Your task to perform on an android device: change the clock display to analog Image 0: 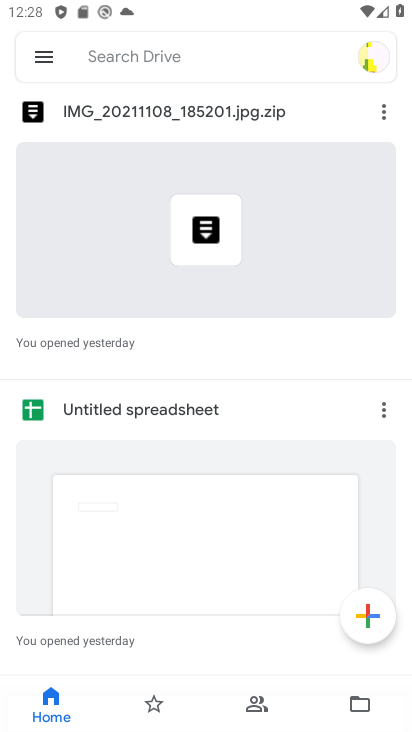
Step 0: press home button
Your task to perform on an android device: change the clock display to analog Image 1: 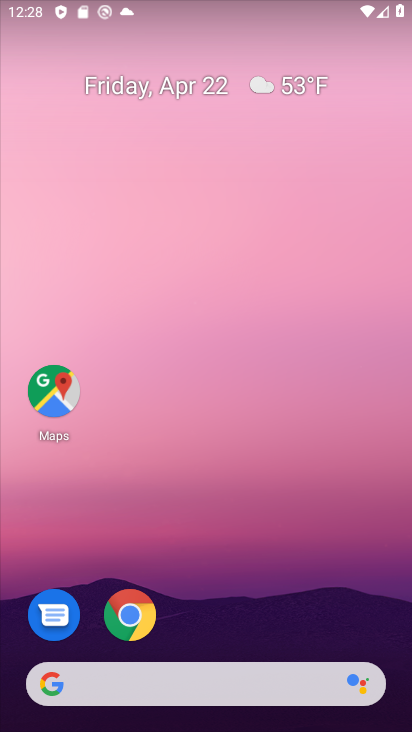
Step 1: drag from (363, 636) to (389, 14)
Your task to perform on an android device: change the clock display to analog Image 2: 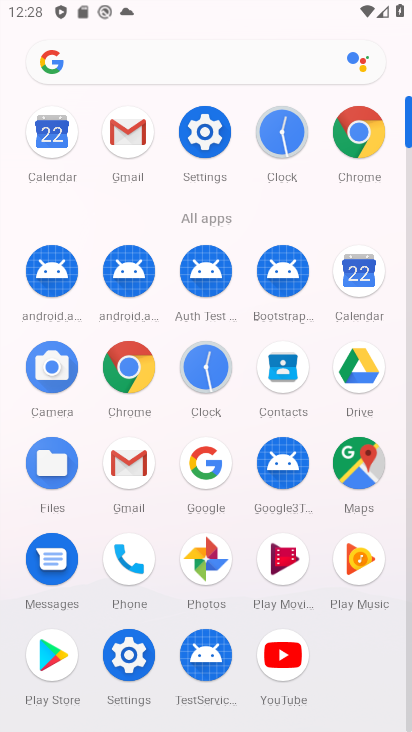
Step 2: click (283, 135)
Your task to perform on an android device: change the clock display to analog Image 3: 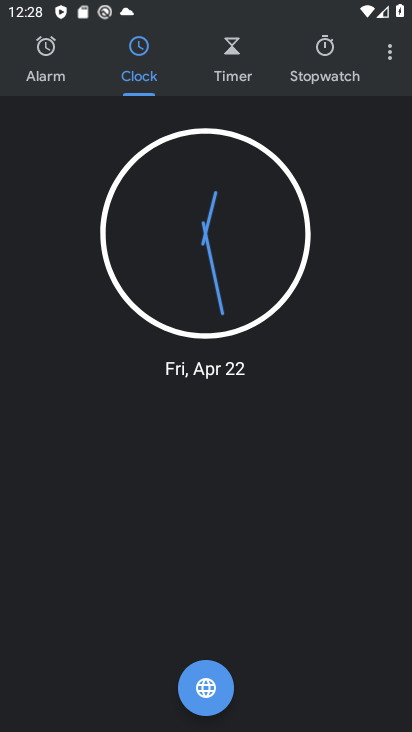
Step 3: click (387, 54)
Your task to perform on an android device: change the clock display to analog Image 4: 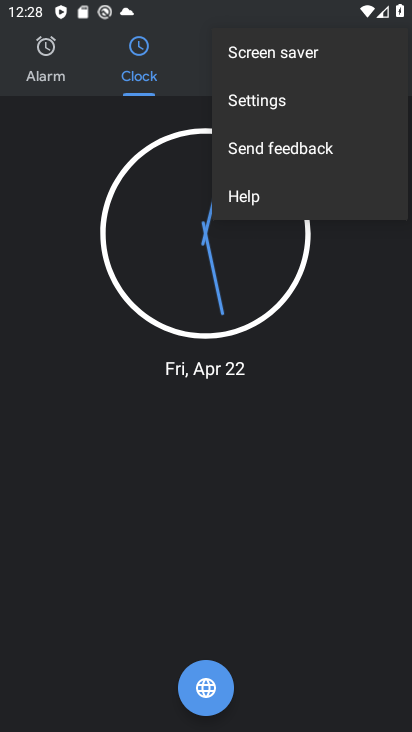
Step 4: click (286, 110)
Your task to perform on an android device: change the clock display to analog Image 5: 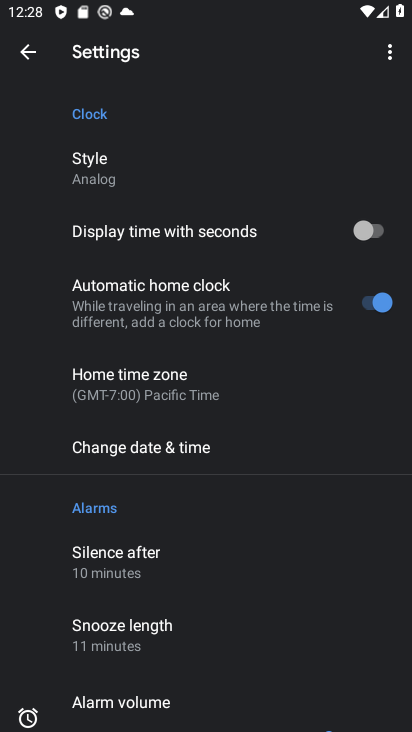
Step 5: click (103, 167)
Your task to perform on an android device: change the clock display to analog Image 6: 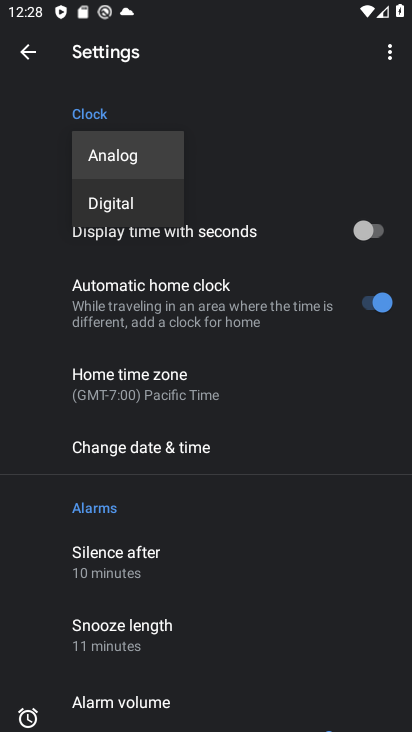
Step 6: task complete